Your task to perform on an android device: turn off location history Image 0: 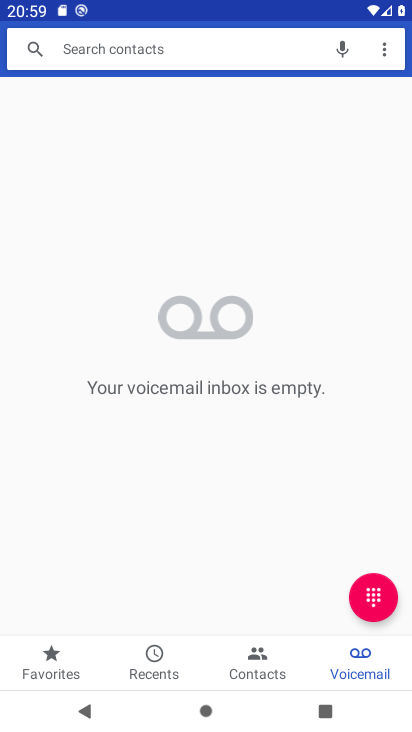
Step 0: press home button
Your task to perform on an android device: turn off location history Image 1: 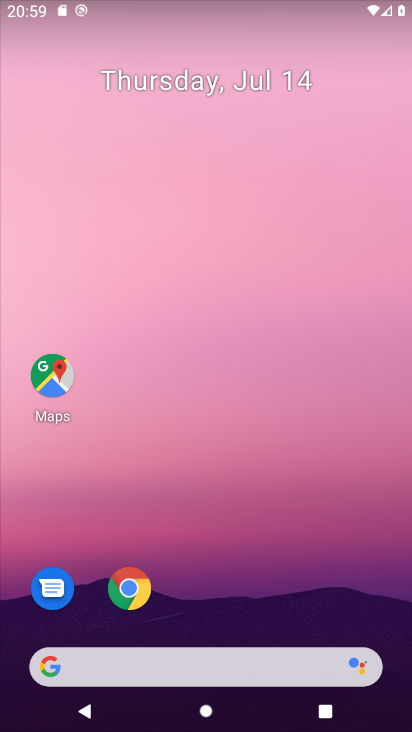
Step 1: drag from (304, 579) to (367, 36)
Your task to perform on an android device: turn off location history Image 2: 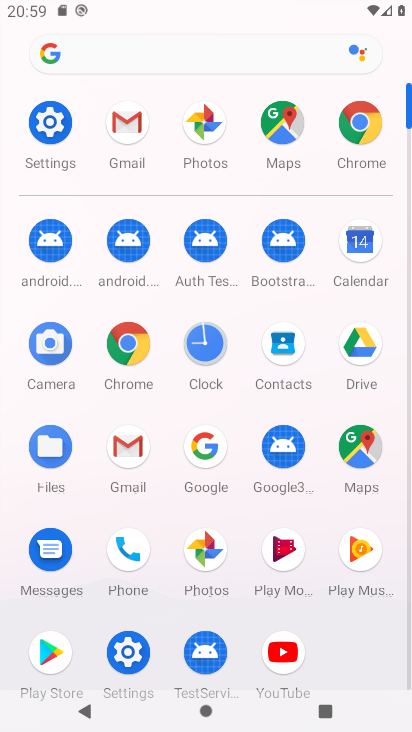
Step 2: click (50, 117)
Your task to perform on an android device: turn off location history Image 3: 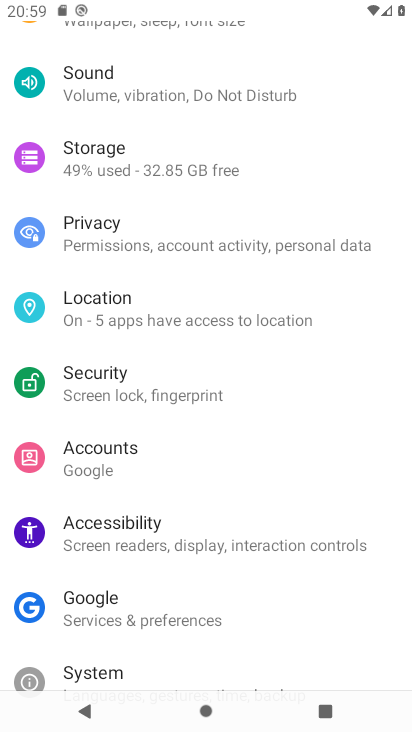
Step 3: click (200, 313)
Your task to perform on an android device: turn off location history Image 4: 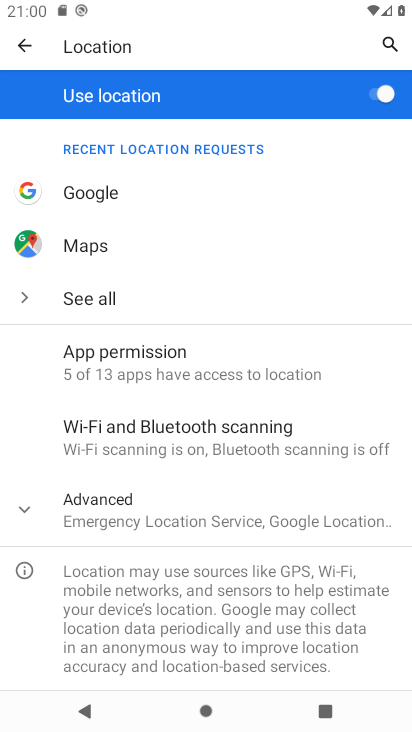
Step 4: click (236, 495)
Your task to perform on an android device: turn off location history Image 5: 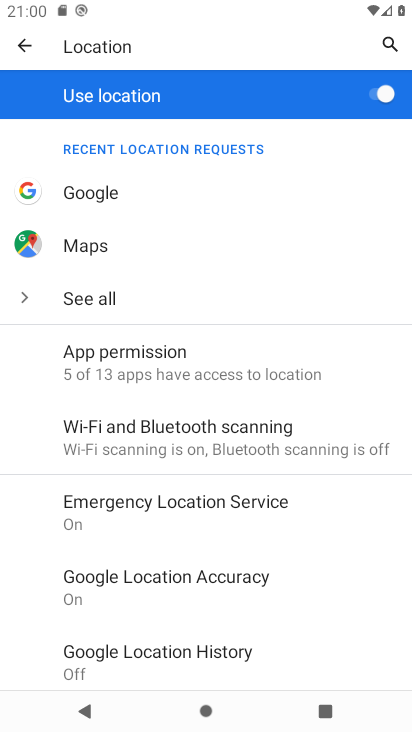
Step 5: task complete